Your task to perform on an android device: Open location settings Image 0: 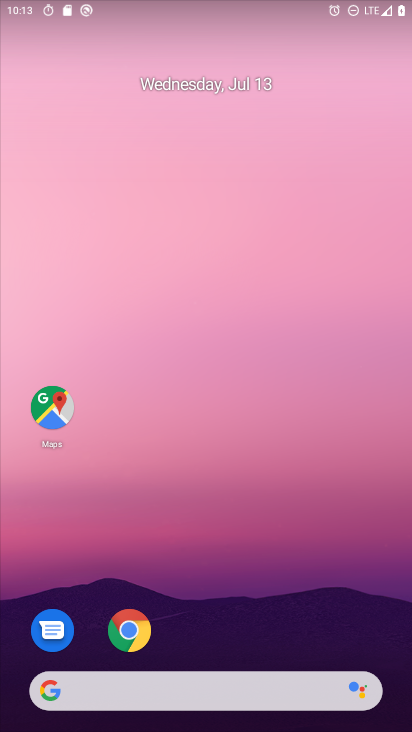
Step 0: drag from (389, 659) to (293, 80)
Your task to perform on an android device: Open location settings Image 1: 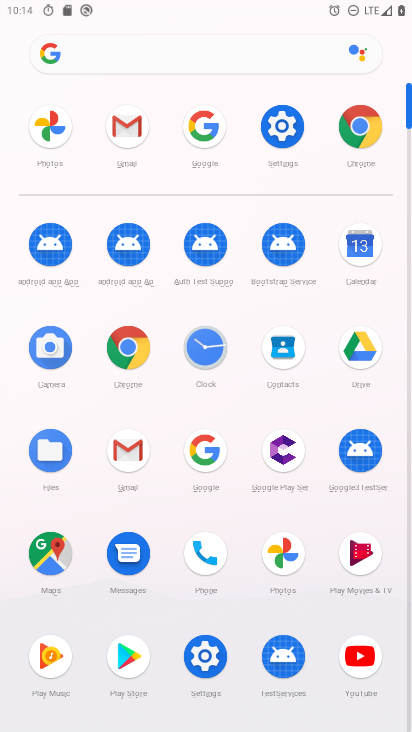
Step 1: click (206, 658)
Your task to perform on an android device: Open location settings Image 2: 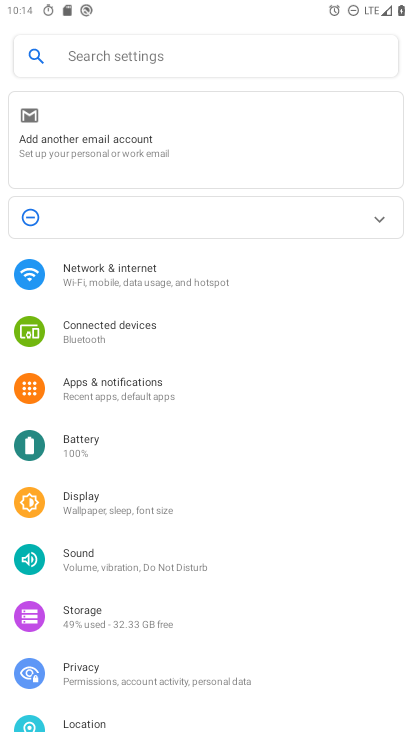
Step 2: click (96, 723)
Your task to perform on an android device: Open location settings Image 3: 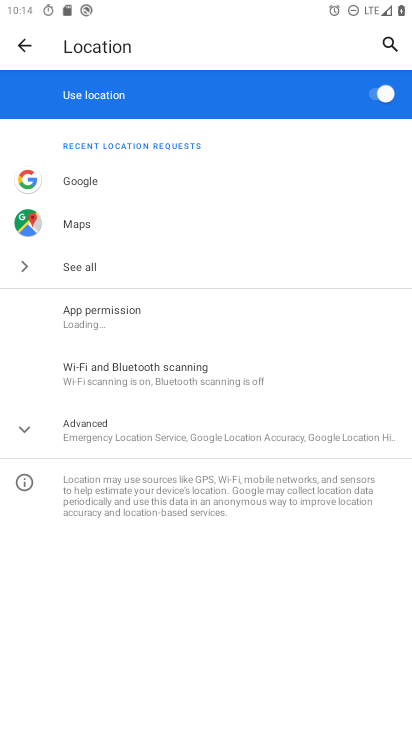
Step 3: task complete